Your task to perform on an android device: Open Reddit.com Image 0: 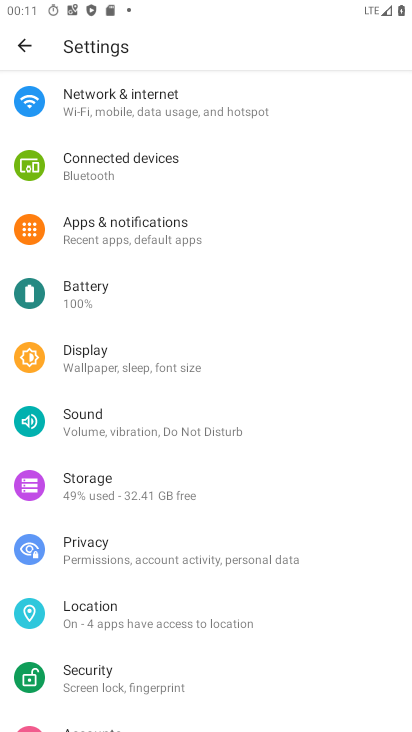
Step 0: press home button
Your task to perform on an android device: Open Reddit.com Image 1: 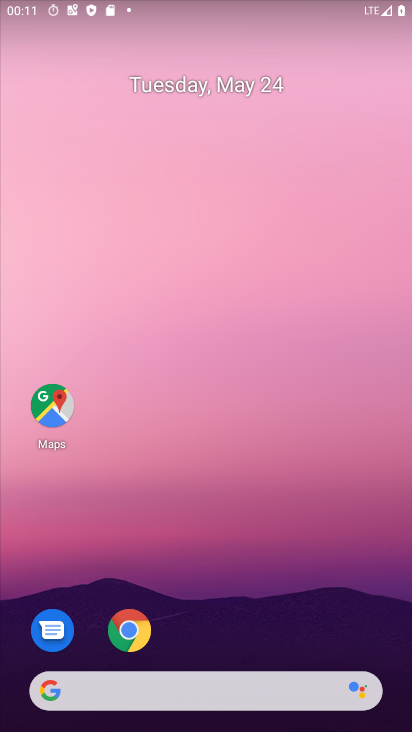
Step 1: click (131, 636)
Your task to perform on an android device: Open Reddit.com Image 2: 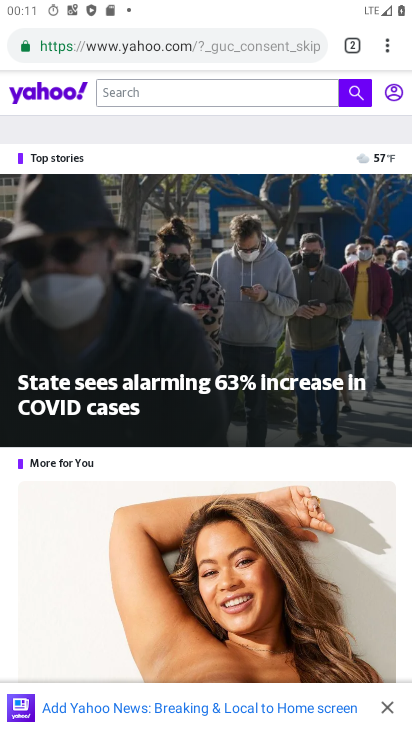
Step 2: click (110, 46)
Your task to perform on an android device: Open Reddit.com Image 3: 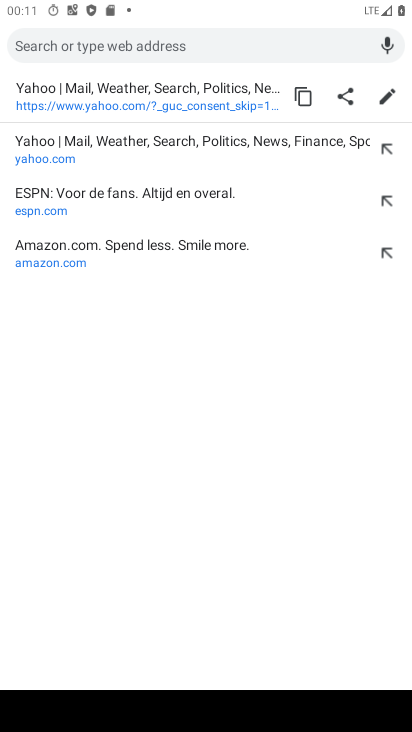
Step 3: type "reddit.com"
Your task to perform on an android device: Open Reddit.com Image 4: 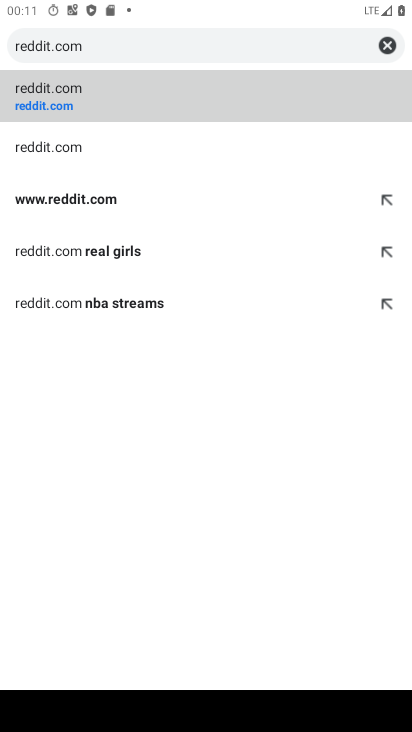
Step 4: click (34, 105)
Your task to perform on an android device: Open Reddit.com Image 5: 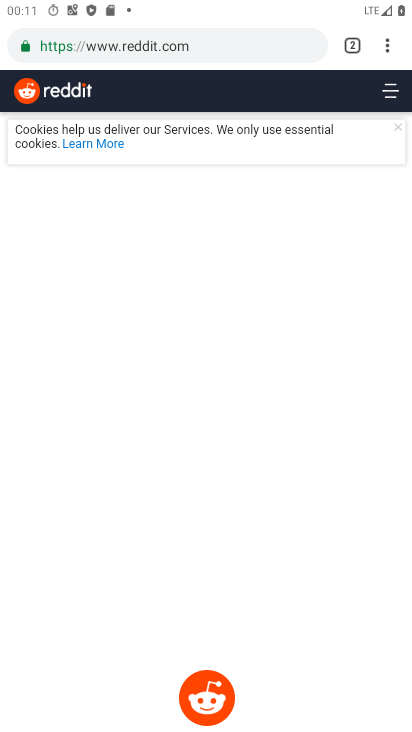
Step 5: task complete